Your task to perform on an android device: Go to Reddit.com Image 0: 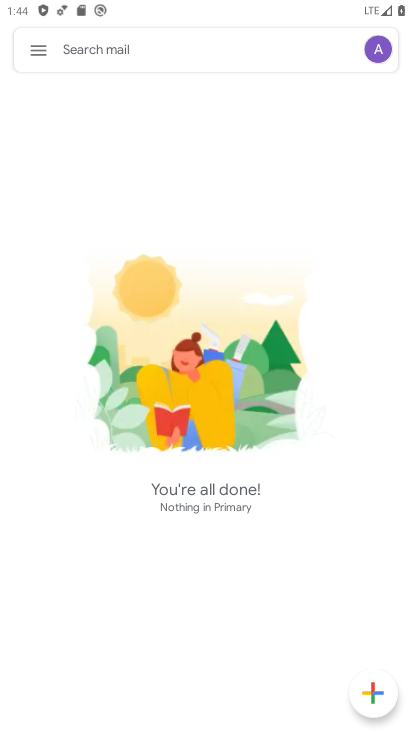
Step 0: press home button
Your task to perform on an android device: Go to Reddit.com Image 1: 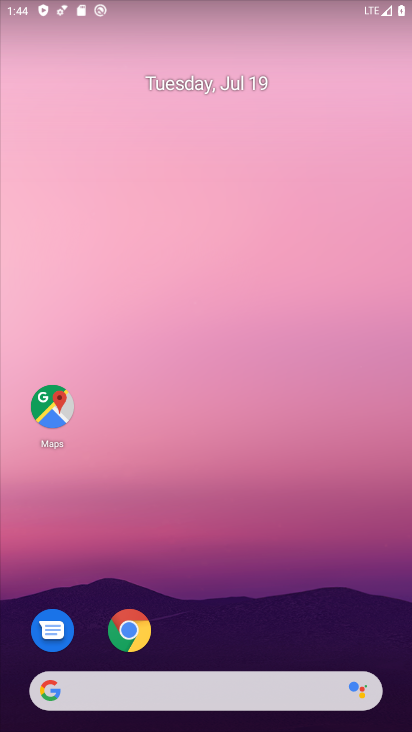
Step 1: click (123, 621)
Your task to perform on an android device: Go to Reddit.com Image 2: 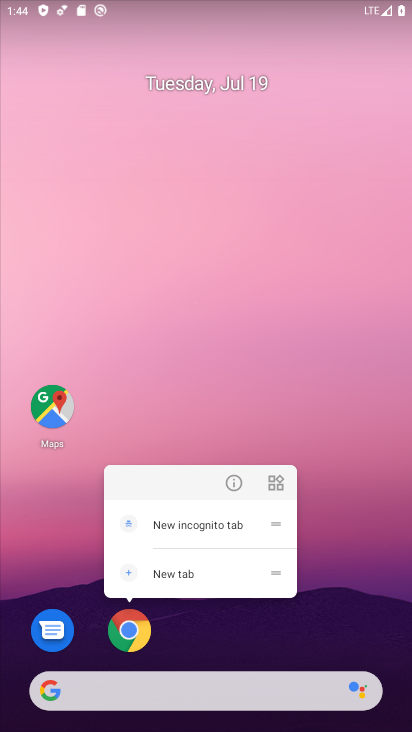
Step 2: click (129, 624)
Your task to perform on an android device: Go to Reddit.com Image 3: 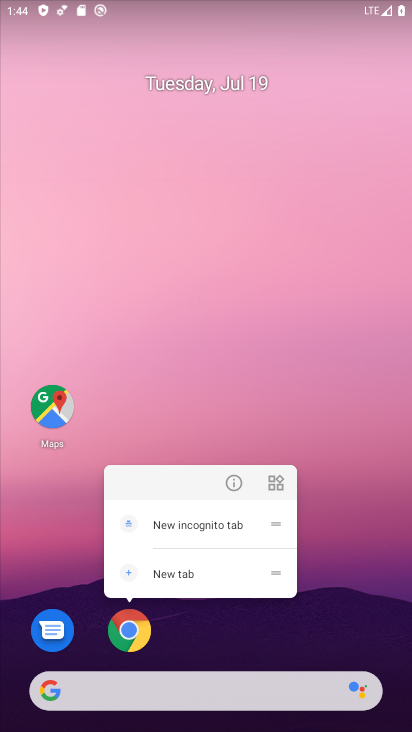
Step 3: click (129, 624)
Your task to perform on an android device: Go to Reddit.com Image 4: 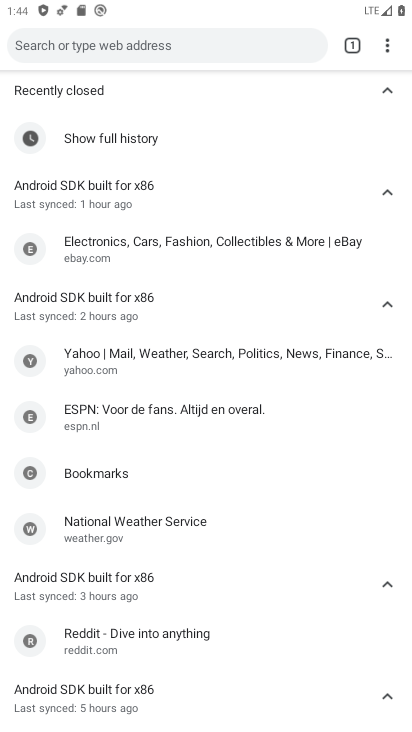
Step 4: click (349, 42)
Your task to perform on an android device: Go to Reddit.com Image 5: 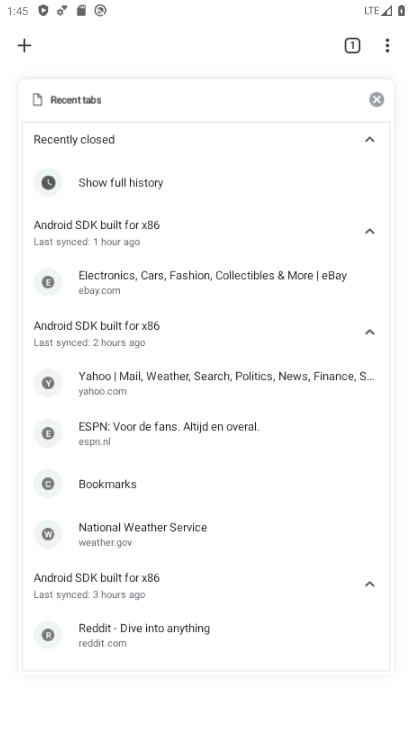
Step 5: click (21, 45)
Your task to perform on an android device: Go to Reddit.com Image 6: 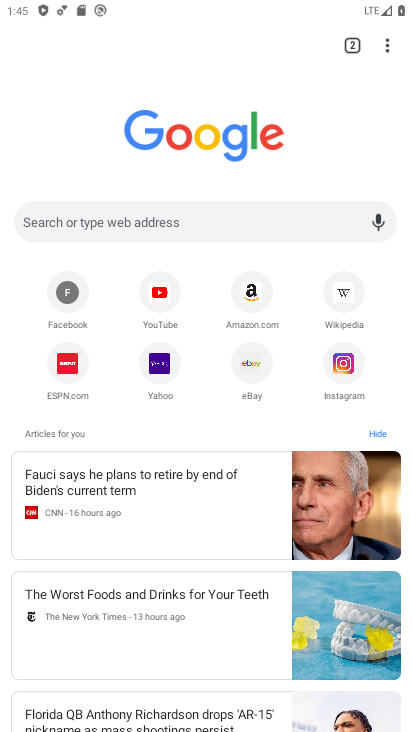
Step 6: click (126, 210)
Your task to perform on an android device: Go to Reddit.com Image 7: 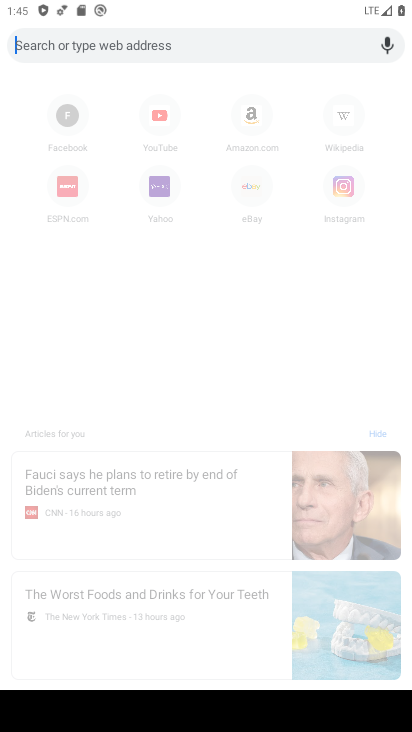
Step 7: type "reddit"
Your task to perform on an android device: Go to Reddit.com Image 8: 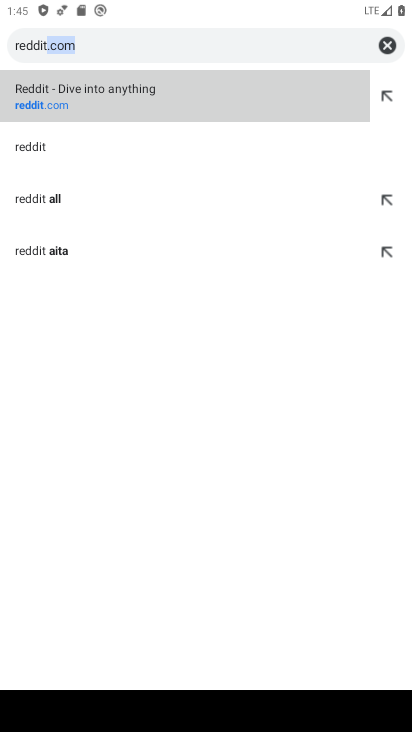
Step 8: click (111, 92)
Your task to perform on an android device: Go to Reddit.com Image 9: 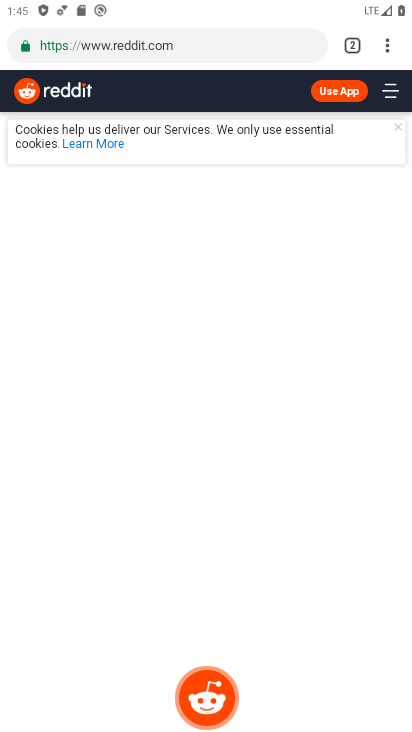
Step 9: task complete